Your task to perform on an android device: Open battery settings Image 0: 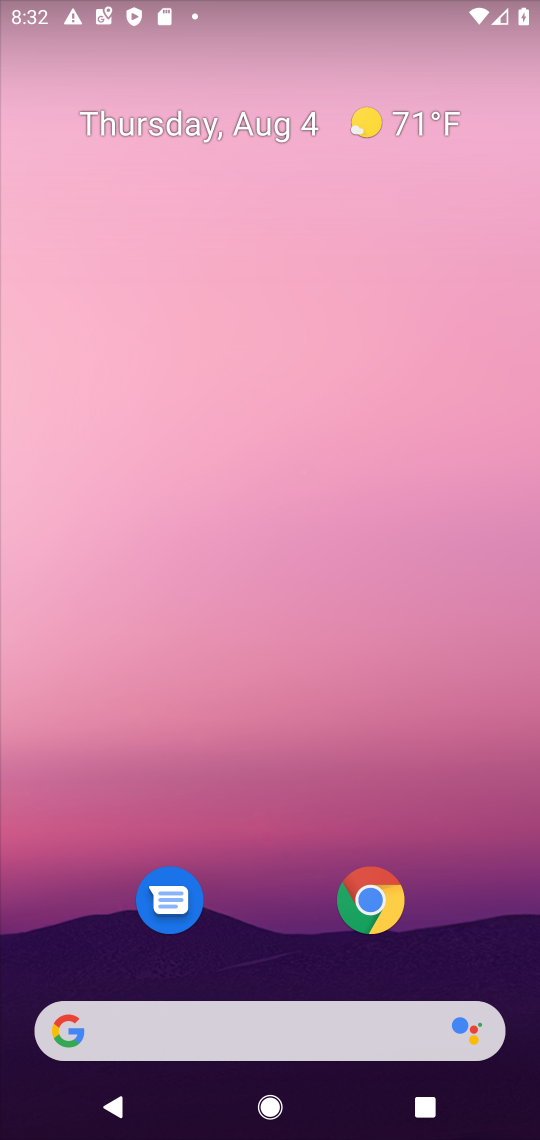
Step 0: drag from (225, 760) to (218, 318)
Your task to perform on an android device: Open battery settings Image 1: 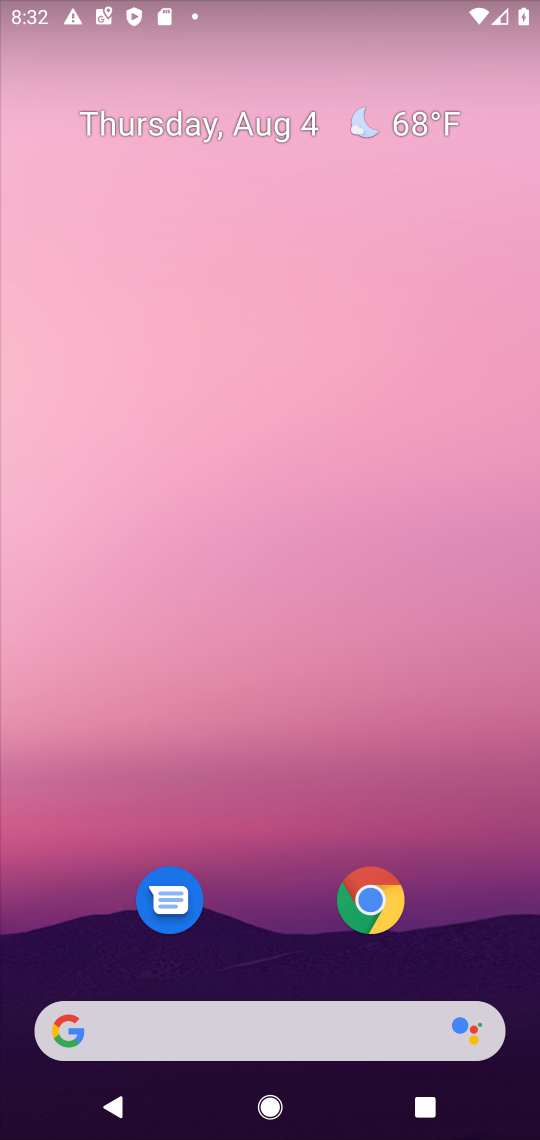
Step 1: drag from (245, 845) to (275, 222)
Your task to perform on an android device: Open battery settings Image 2: 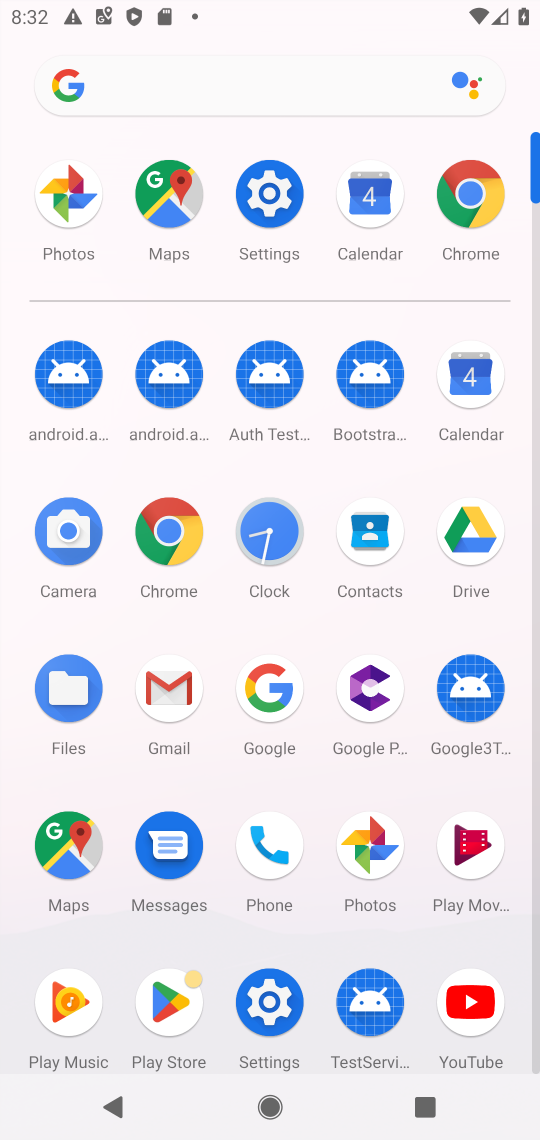
Step 2: click (263, 208)
Your task to perform on an android device: Open battery settings Image 3: 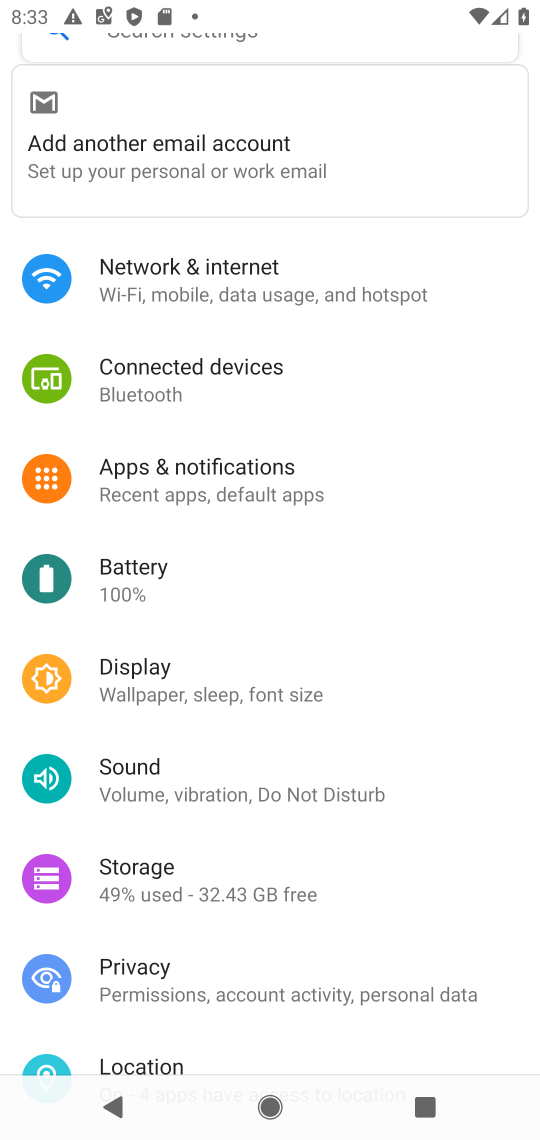
Step 3: click (137, 579)
Your task to perform on an android device: Open battery settings Image 4: 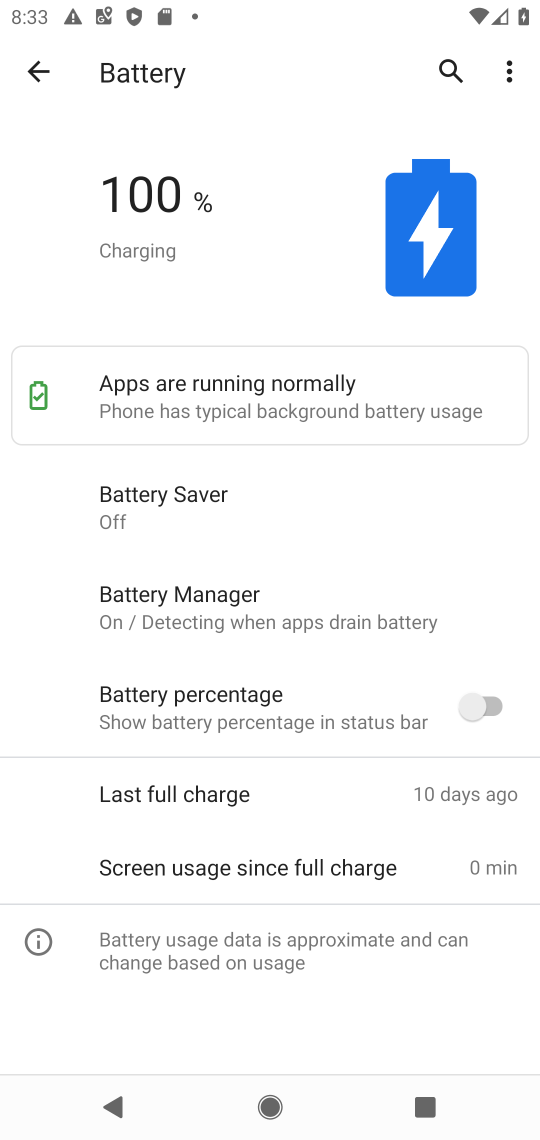
Step 4: task complete